Your task to perform on an android device: Where can I buy a nice beach towel? Image 0: 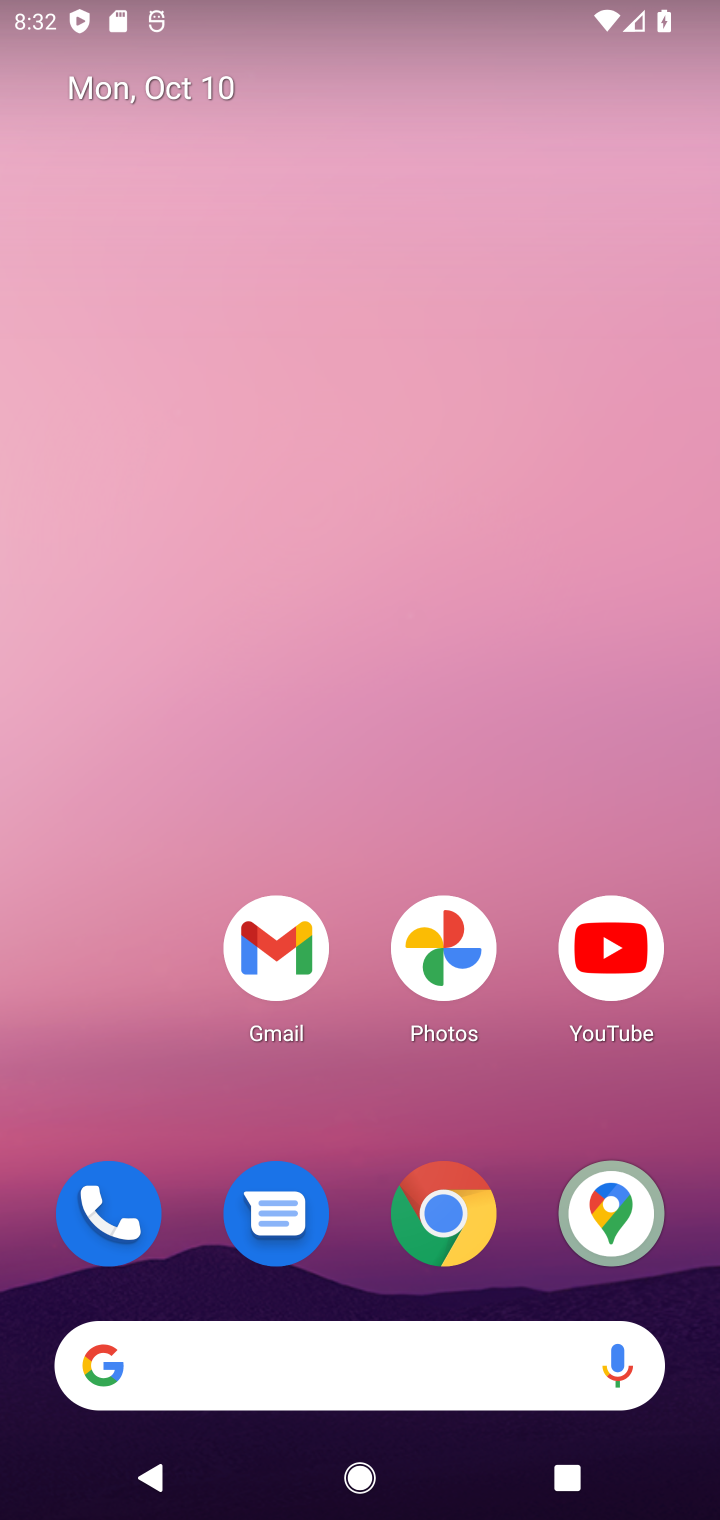
Step 0: click (248, 1391)
Your task to perform on an android device: Where can I buy a nice beach towel? Image 1: 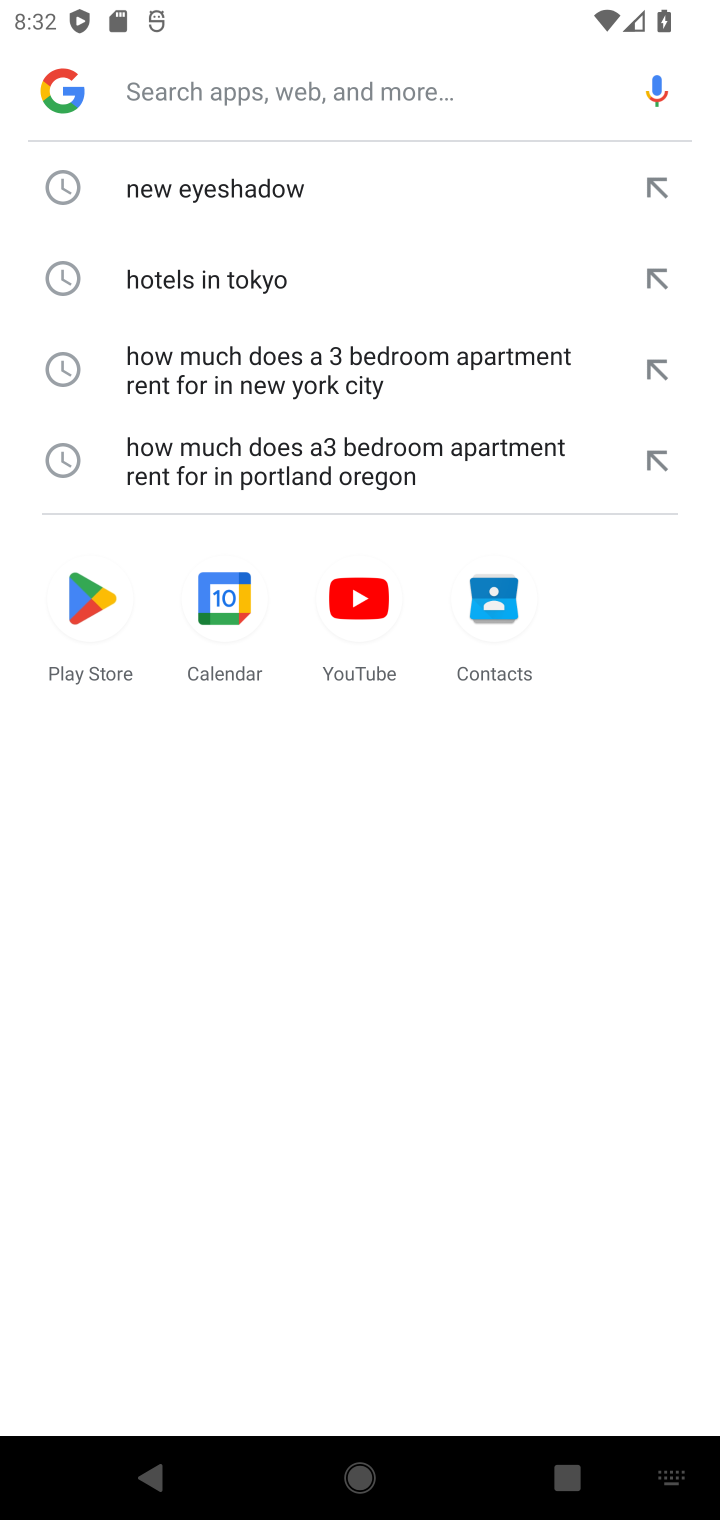
Step 1: click (202, 90)
Your task to perform on an android device: Where can I buy a nice beach towel? Image 2: 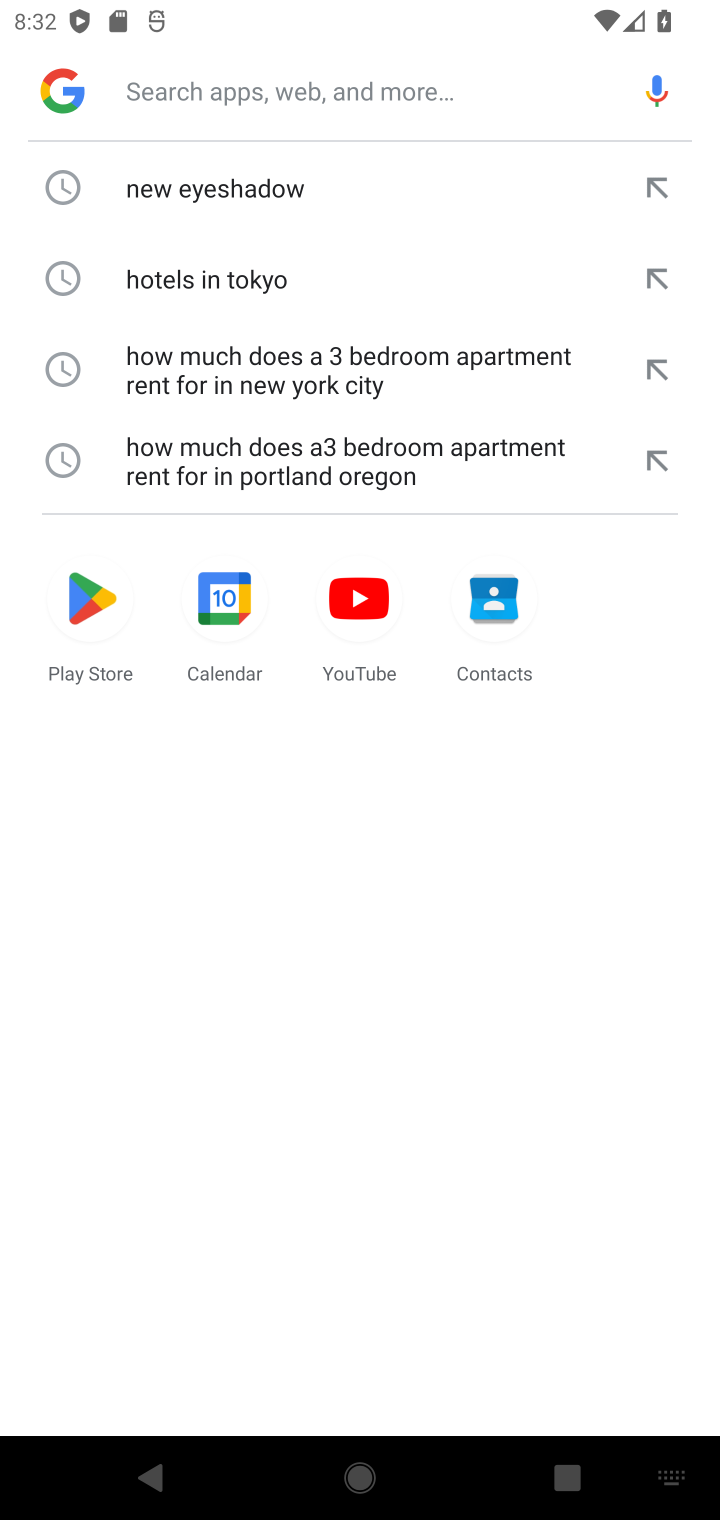
Step 2: type "Where can I buy a nice beach towel?"
Your task to perform on an android device: Where can I buy a nice beach towel? Image 3: 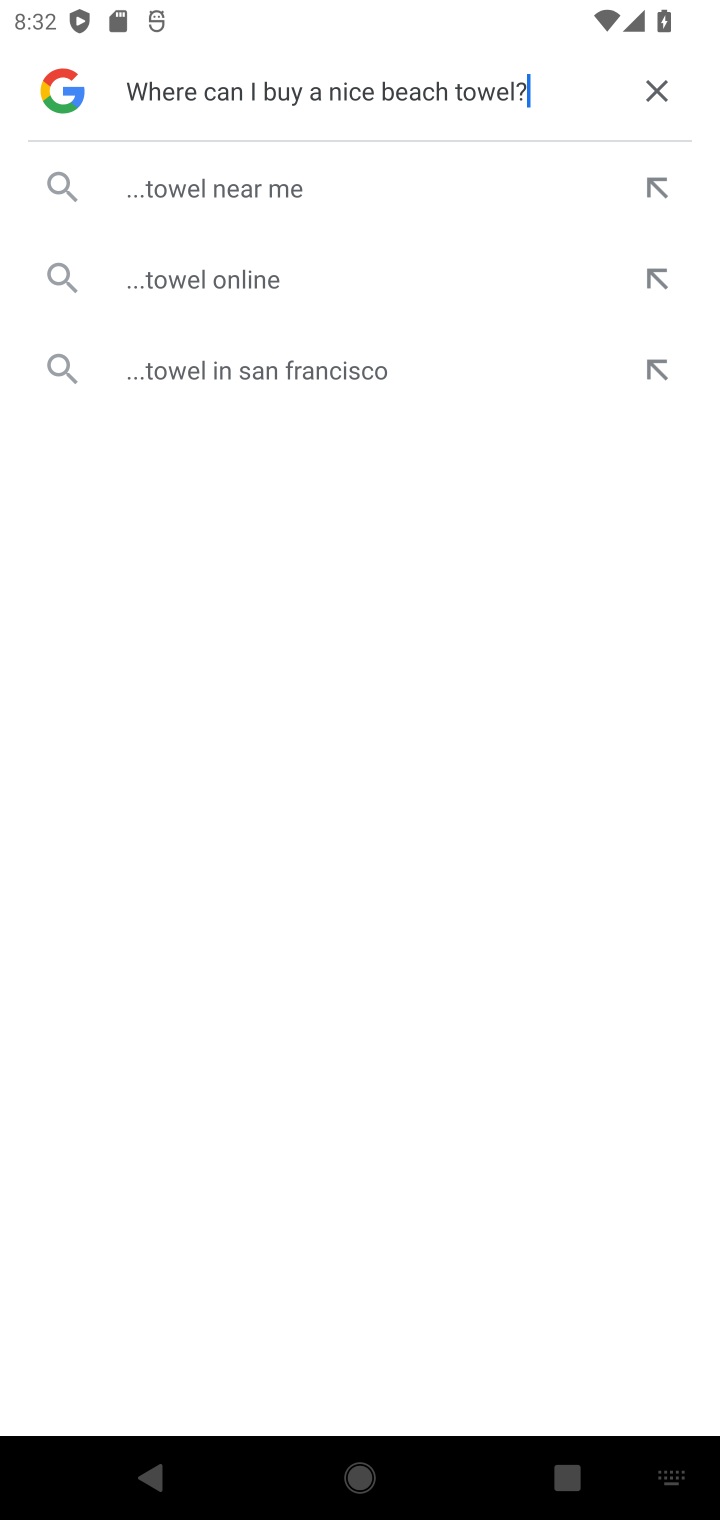
Step 3: click (220, 184)
Your task to perform on an android device: Where can I buy a nice beach towel? Image 4: 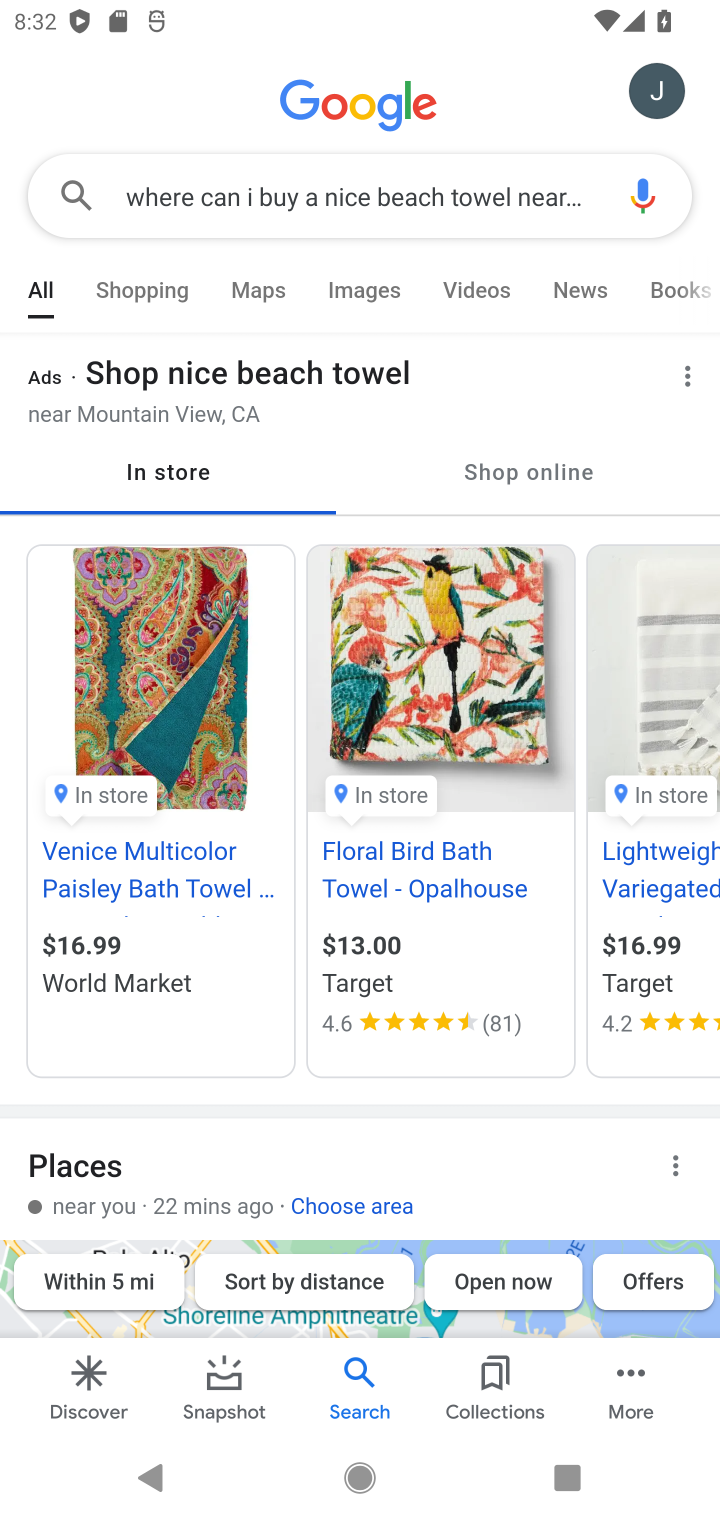
Step 4: task complete